Your task to perform on an android device: Search for pizza restaurants on Maps Image 0: 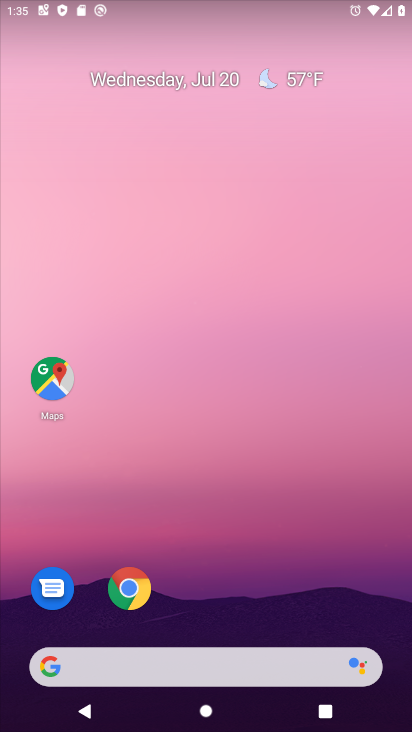
Step 0: click (58, 383)
Your task to perform on an android device: Search for pizza restaurants on Maps Image 1: 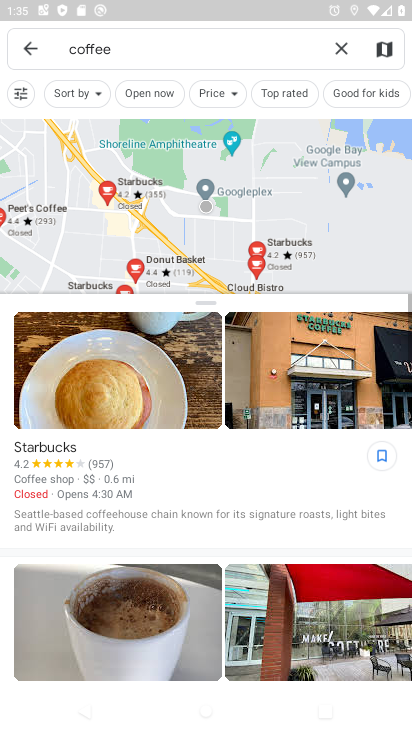
Step 1: click (342, 48)
Your task to perform on an android device: Search for pizza restaurants on Maps Image 2: 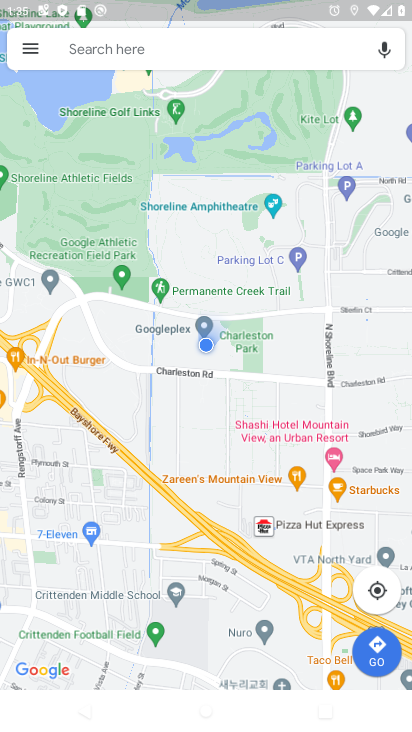
Step 2: click (209, 31)
Your task to perform on an android device: Search for pizza restaurants on Maps Image 3: 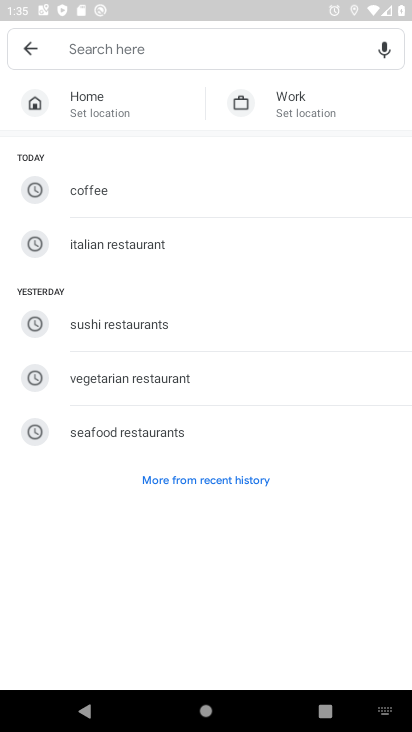
Step 3: type "pizza restaurants"
Your task to perform on an android device: Search for pizza restaurants on Maps Image 4: 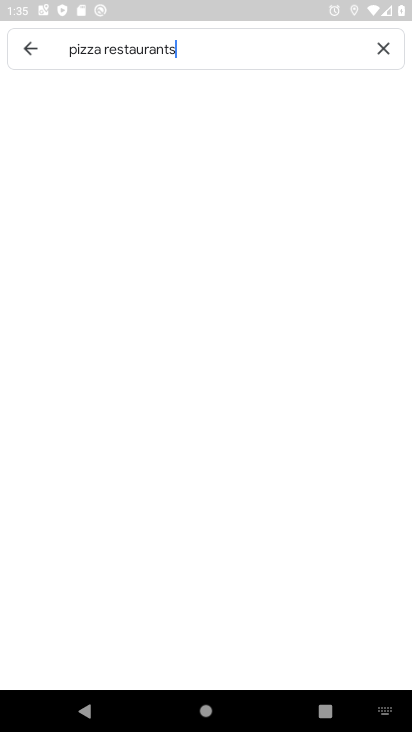
Step 4: type ""
Your task to perform on an android device: Search for pizza restaurants on Maps Image 5: 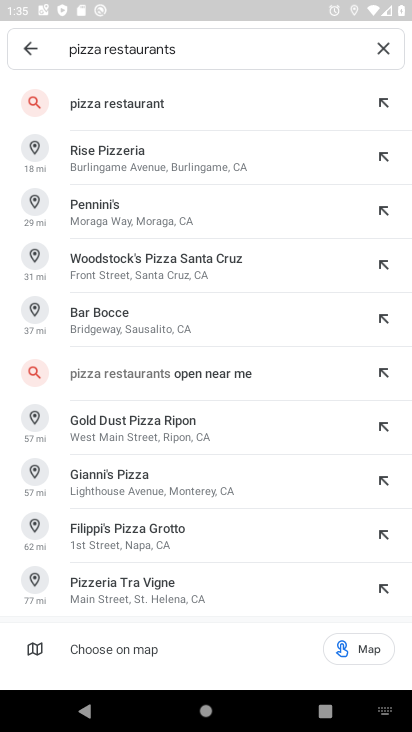
Step 5: click (130, 93)
Your task to perform on an android device: Search for pizza restaurants on Maps Image 6: 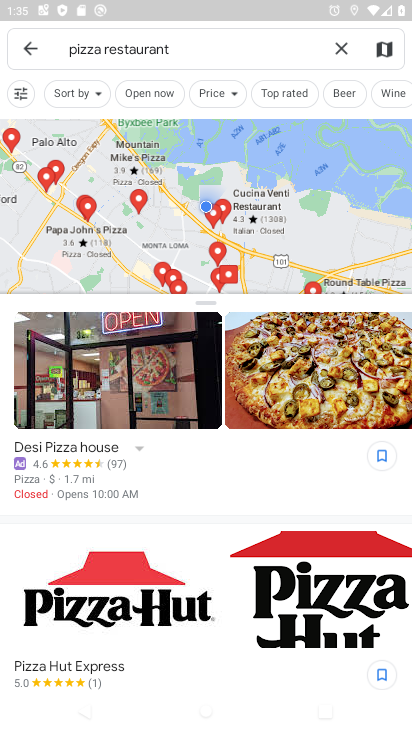
Step 6: task complete